Your task to perform on an android device: delete the emails in spam in the gmail app Image 0: 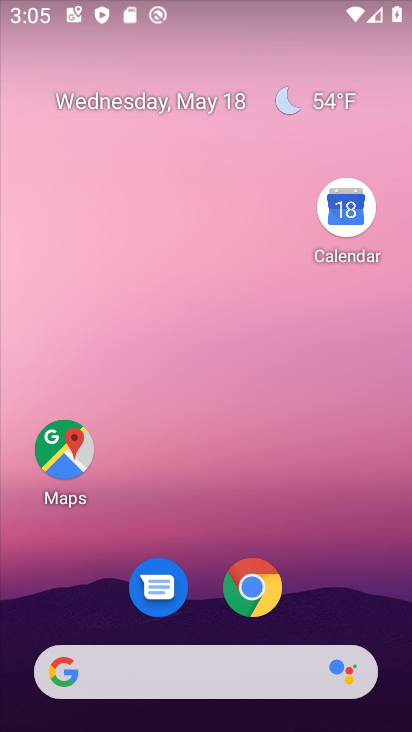
Step 0: drag from (159, 602) to (218, 14)
Your task to perform on an android device: delete the emails in spam in the gmail app Image 1: 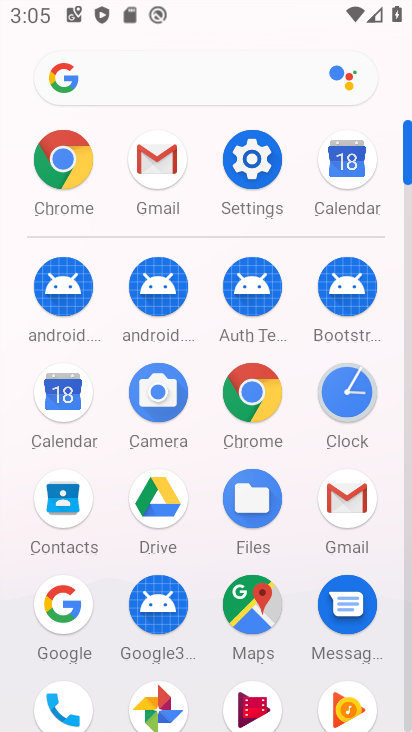
Step 1: click (350, 505)
Your task to perform on an android device: delete the emails in spam in the gmail app Image 2: 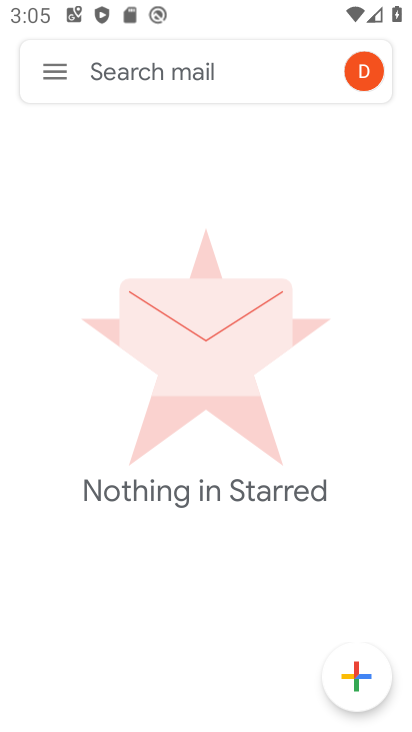
Step 2: drag from (214, 621) to (215, 359)
Your task to perform on an android device: delete the emails in spam in the gmail app Image 3: 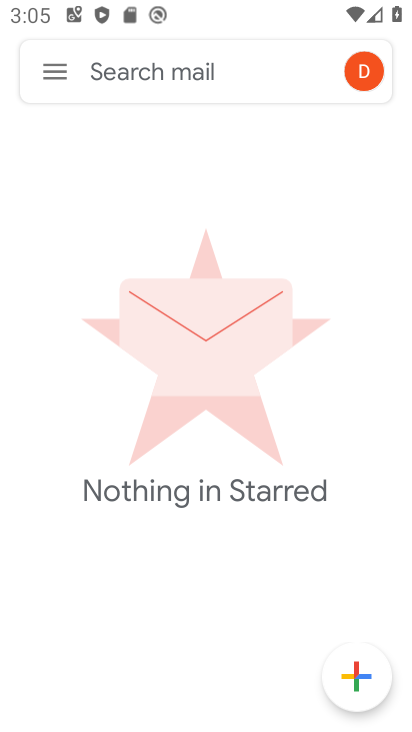
Step 3: click (339, 74)
Your task to perform on an android device: delete the emails in spam in the gmail app Image 4: 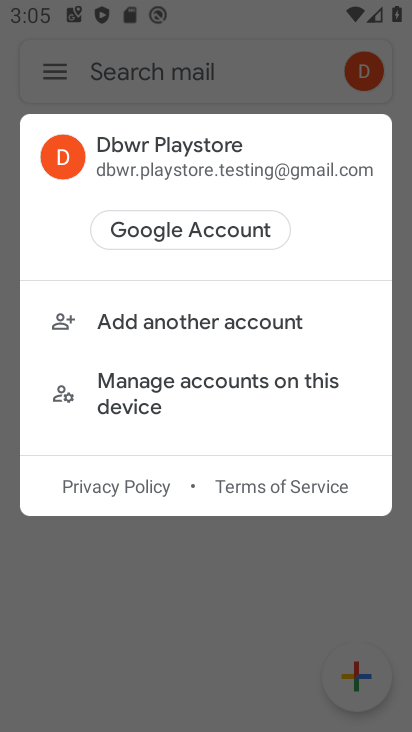
Step 4: click (253, 120)
Your task to perform on an android device: delete the emails in spam in the gmail app Image 5: 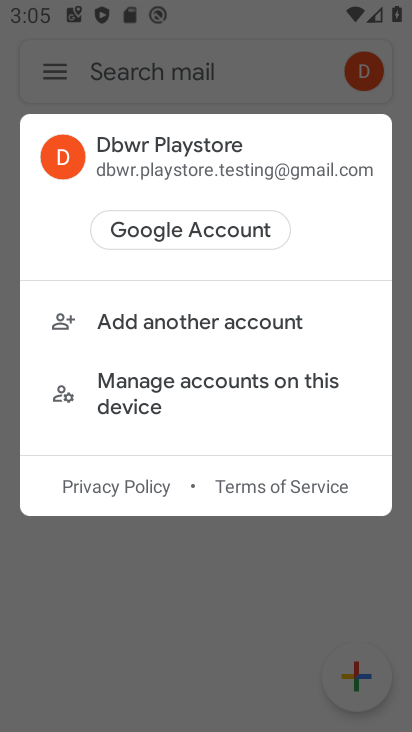
Step 5: press back button
Your task to perform on an android device: delete the emails in spam in the gmail app Image 6: 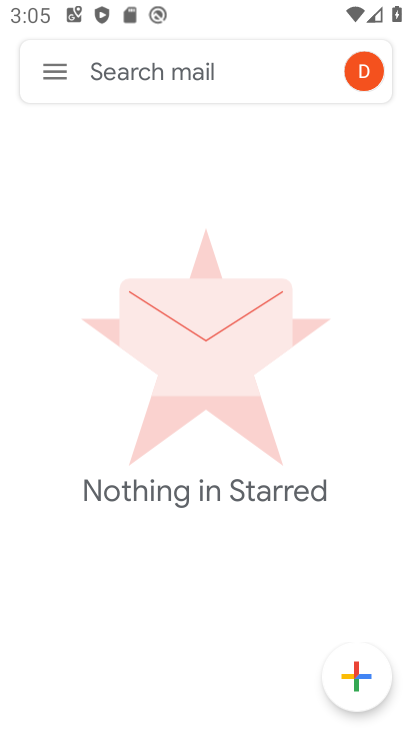
Step 6: click (61, 69)
Your task to perform on an android device: delete the emails in spam in the gmail app Image 7: 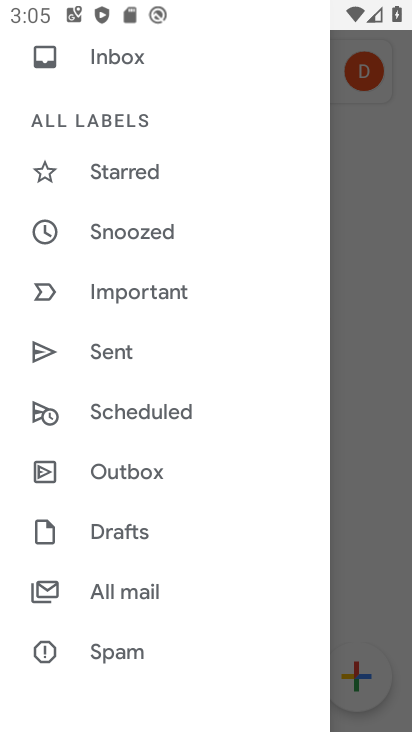
Step 7: drag from (178, 540) to (189, 107)
Your task to perform on an android device: delete the emails in spam in the gmail app Image 8: 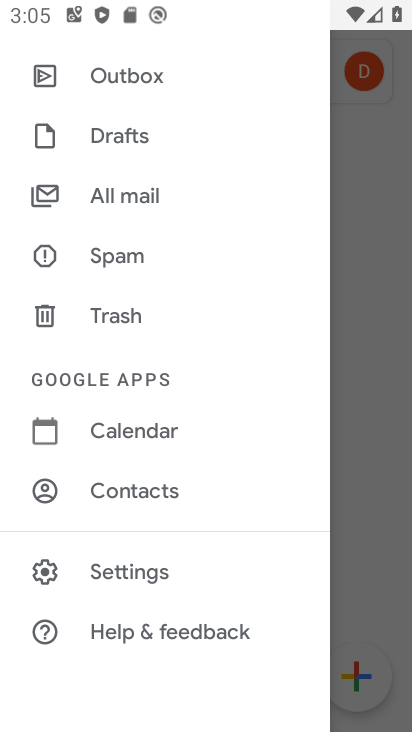
Step 8: click (140, 264)
Your task to perform on an android device: delete the emails in spam in the gmail app Image 9: 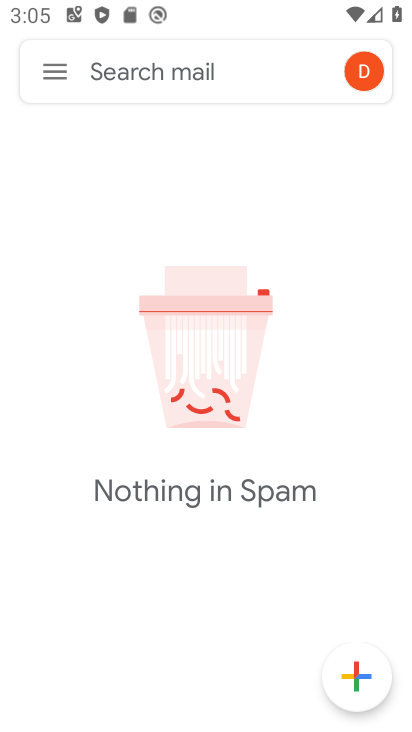
Step 9: task complete